Your task to perform on an android device: open app "DoorDash - Dasher" (install if not already installed), go to login, and select forgot password Image 0: 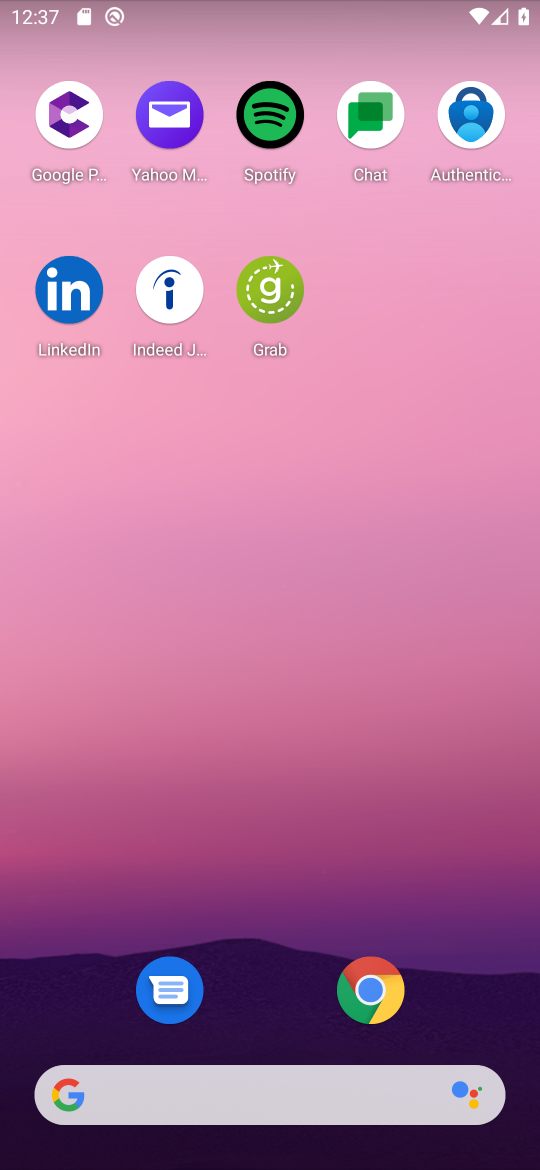
Step 0: drag from (244, 929) to (287, 261)
Your task to perform on an android device: open app "DoorDash - Dasher" (install if not already installed), go to login, and select forgot password Image 1: 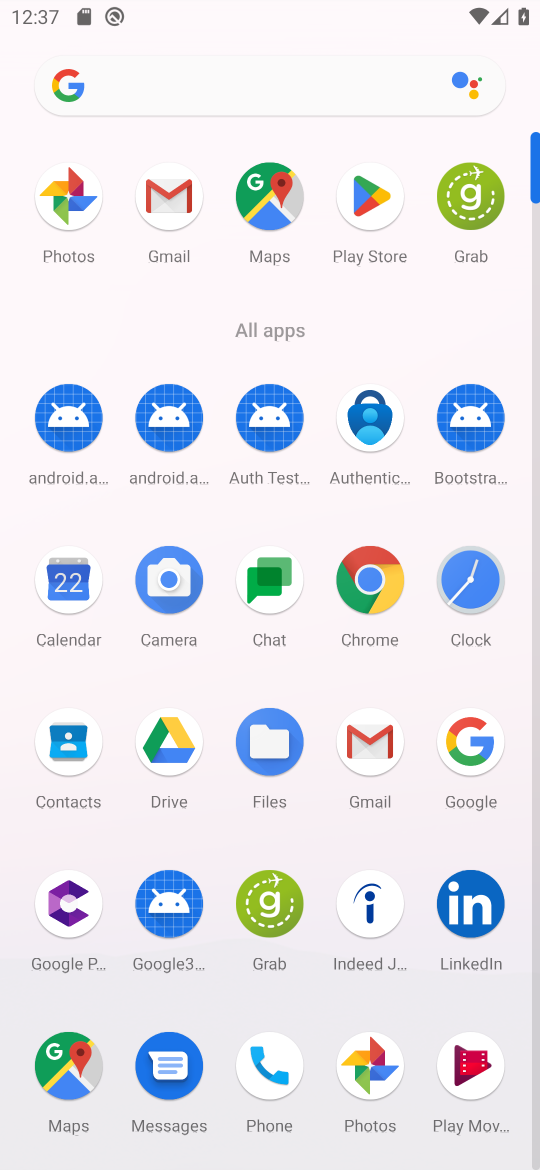
Step 1: click (361, 234)
Your task to perform on an android device: open app "DoorDash - Dasher" (install if not already installed), go to login, and select forgot password Image 2: 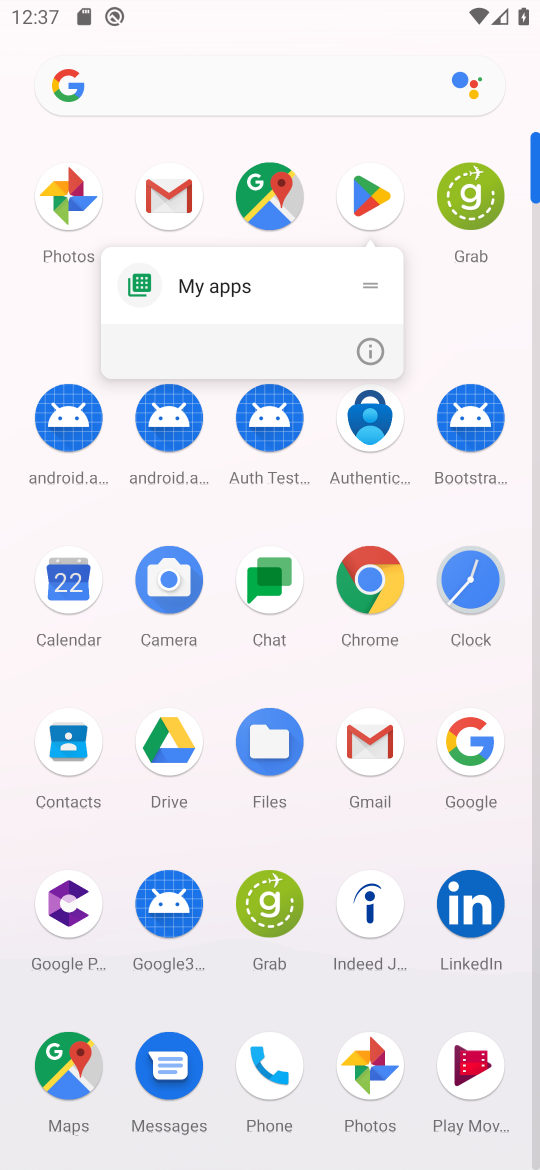
Step 2: click (365, 207)
Your task to perform on an android device: open app "DoorDash - Dasher" (install if not already installed), go to login, and select forgot password Image 3: 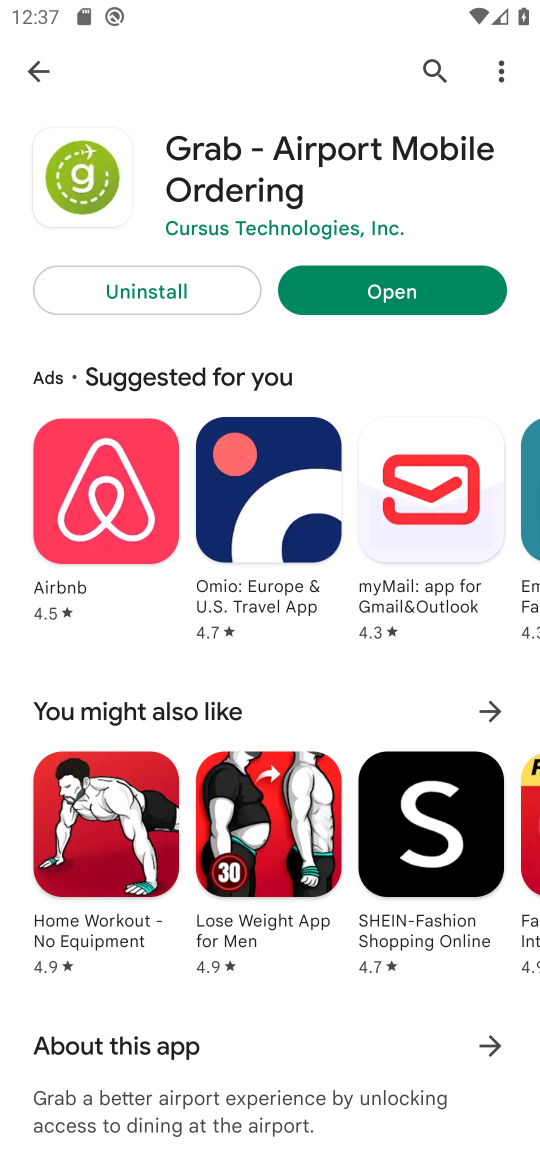
Step 3: click (426, 74)
Your task to perform on an android device: open app "DoorDash - Dasher" (install if not already installed), go to login, and select forgot password Image 4: 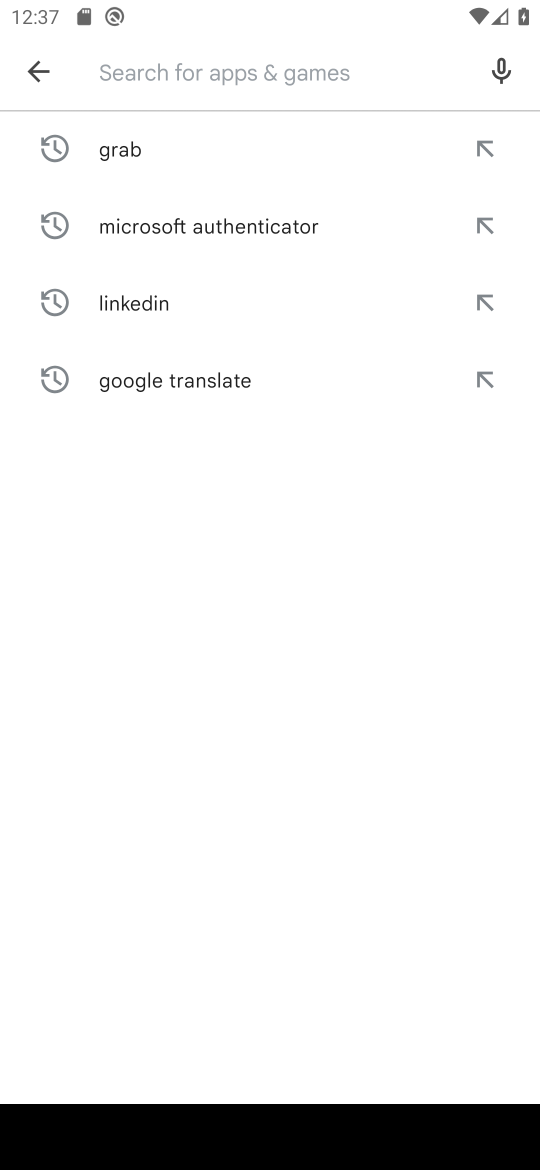
Step 4: type "DoorDash - Dasher"
Your task to perform on an android device: open app "DoorDash - Dasher" (install if not already installed), go to login, and select forgot password Image 5: 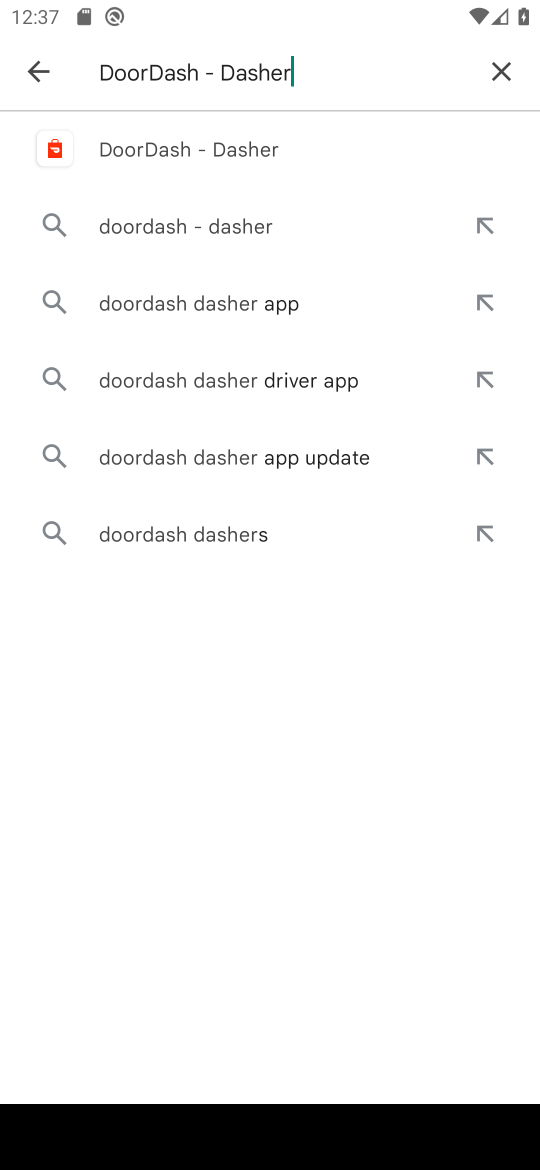
Step 5: click (264, 141)
Your task to perform on an android device: open app "DoorDash - Dasher" (install if not already installed), go to login, and select forgot password Image 6: 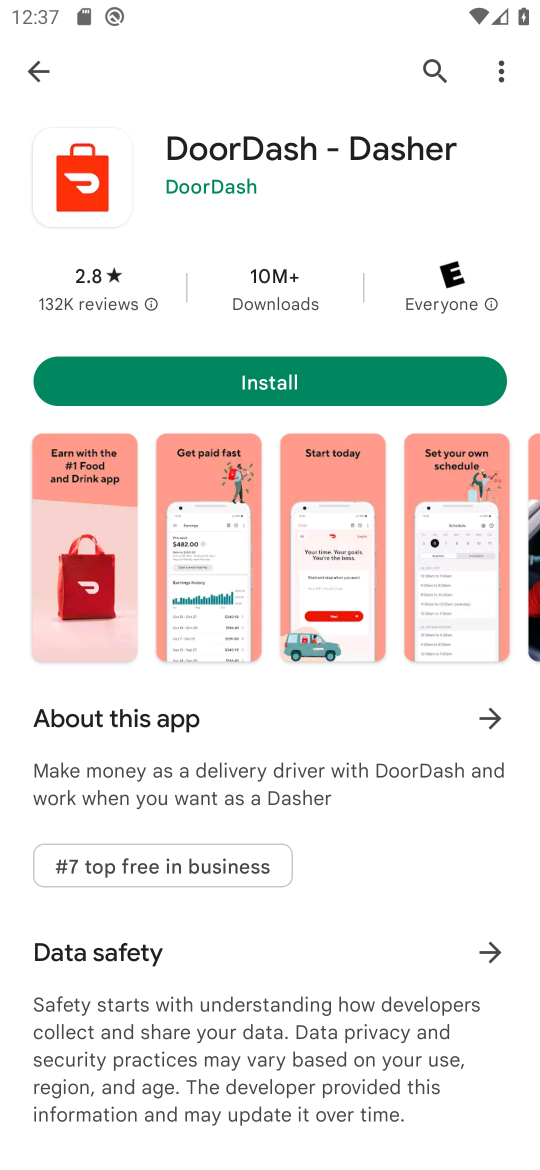
Step 6: click (294, 382)
Your task to perform on an android device: open app "DoorDash - Dasher" (install if not already installed), go to login, and select forgot password Image 7: 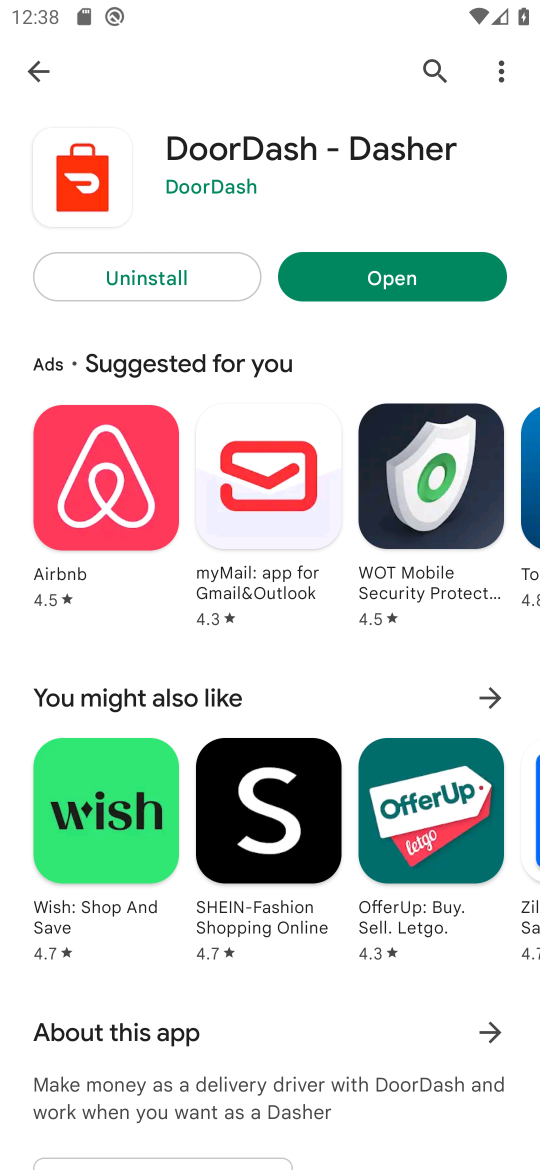
Step 7: click (369, 296)
Your task to perform on an android device: open app "DoorDash - Dasher" (install if not already installed), go to login, and select forgot password Image 8: 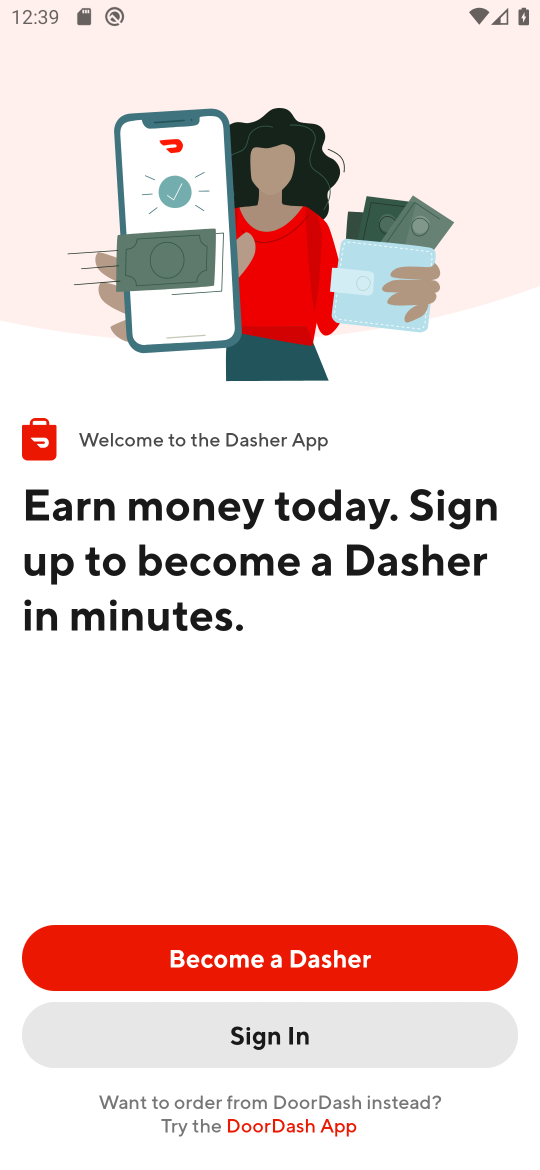
Step 8: task complete